Your task to perform on an android device: stop showing notifications on the lock screen Image 0: 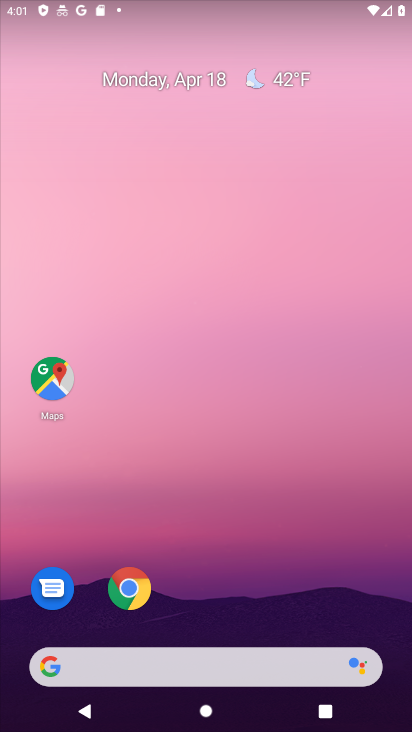
Step 0: drag from (223, 453) to (238, 166)
Your task to perform on an android device: stop showing notifications on the lock screen Image 1: 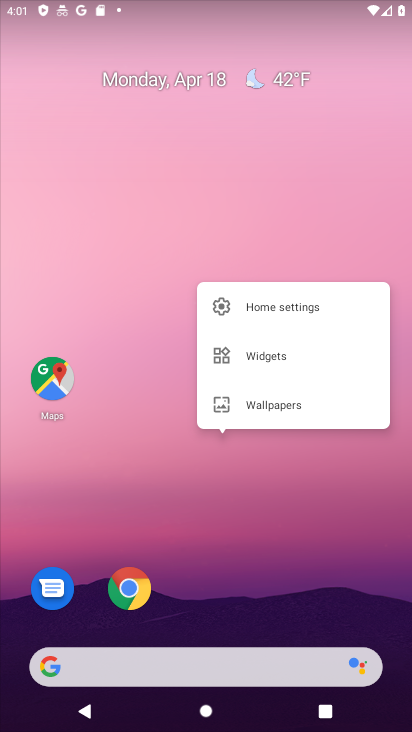
Step 1: drag from (209, 549) to (210, 210)
Your task to perform on an android device: stop showing notifications on the lock screen Image 2: 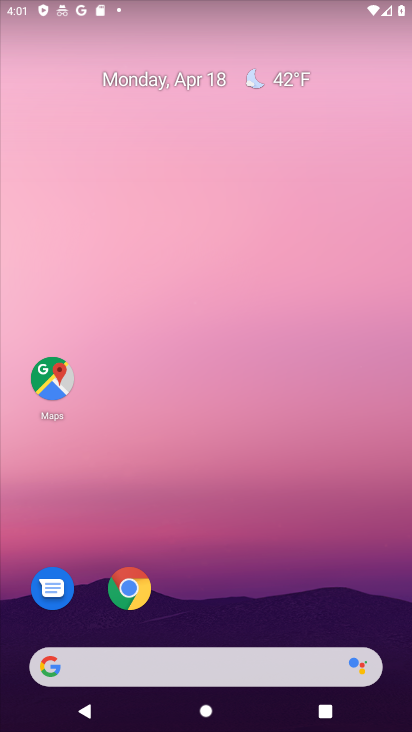
Step 2: drag from (184, 608) to (205, 91)
Your task to perform on an android device: stop showing notifications on the lock screen Image 3: 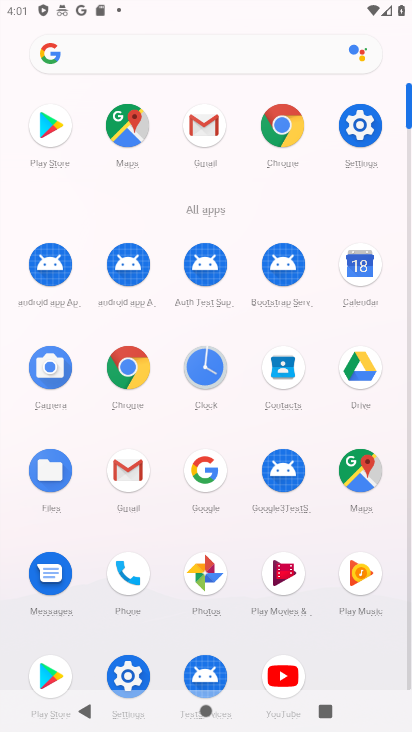
Step 3: click (132, 673)
Your task to perform on an android device: stop showing notifications on the lock screen Image 4: 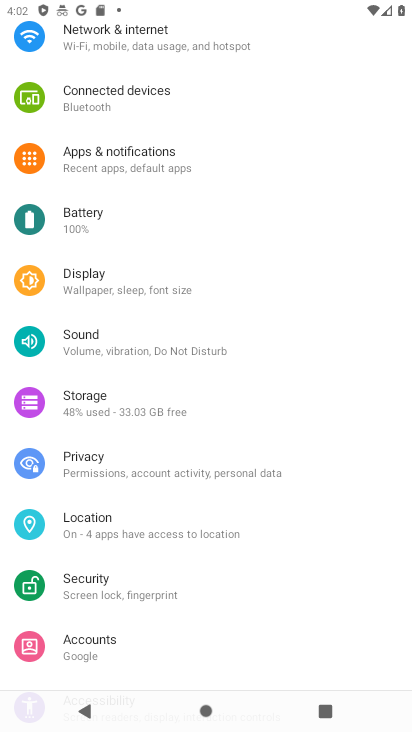
Step 4: click (192, 164)
Your task to perform on an android device: stop showing notifications on the lock screen Image 5: 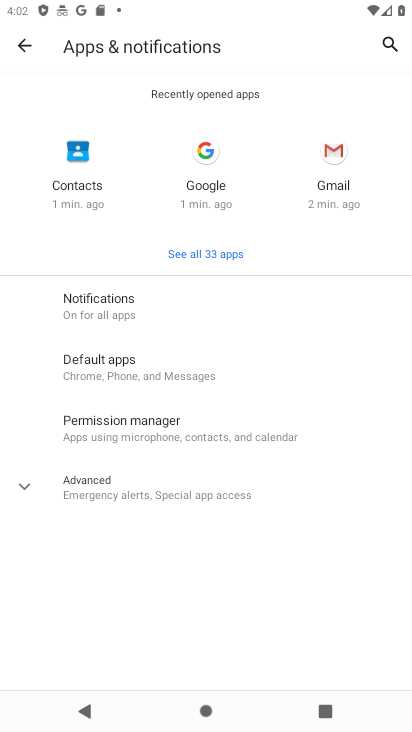
Step 5: click (133, 309)
Your task to perform on an android device: stop showing notifications on the lock screen Image 6: 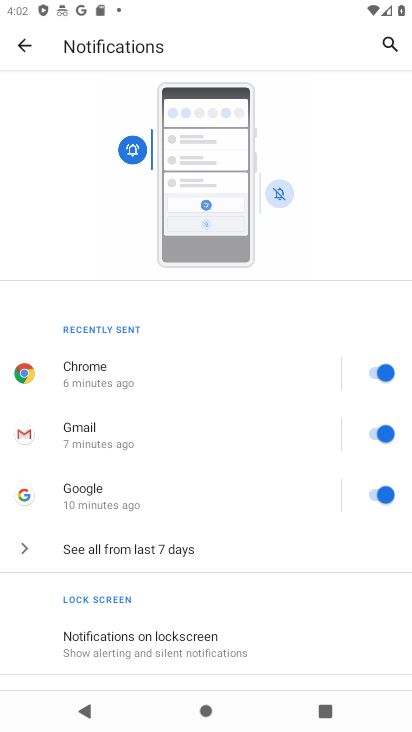
Step 6: click (172, 644)
Your task to perform on an android device: stop showing notifications on the lock screen Image 7: 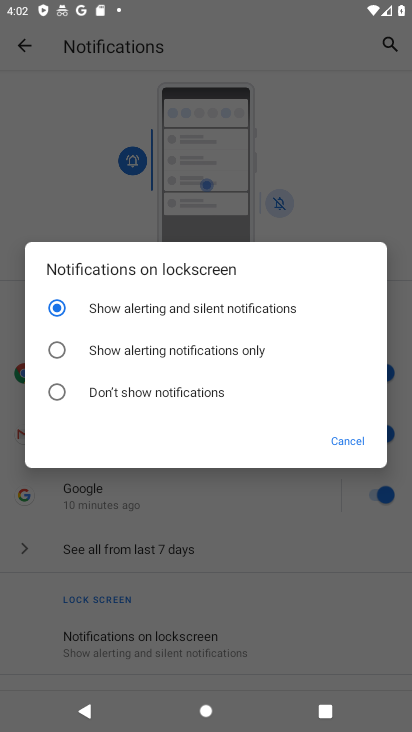
Step 7: click (98, 399)
Your task to perform on an android device: stop showing notifications on the lock screen Image 8: 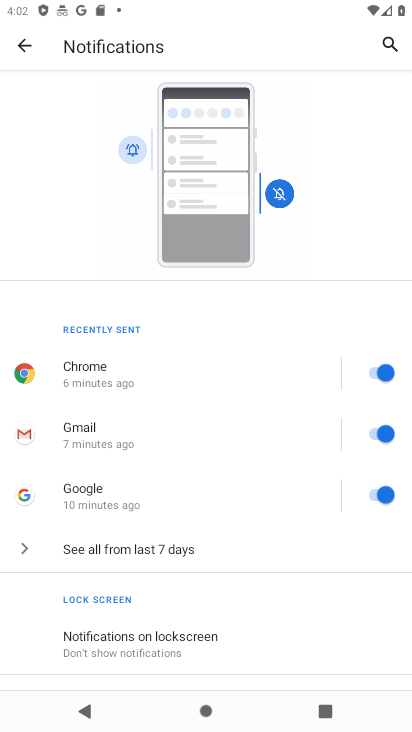
Step 8: task complete